Your task to perform on an android device: Open Youtube and go to "Your channel" Image 0: 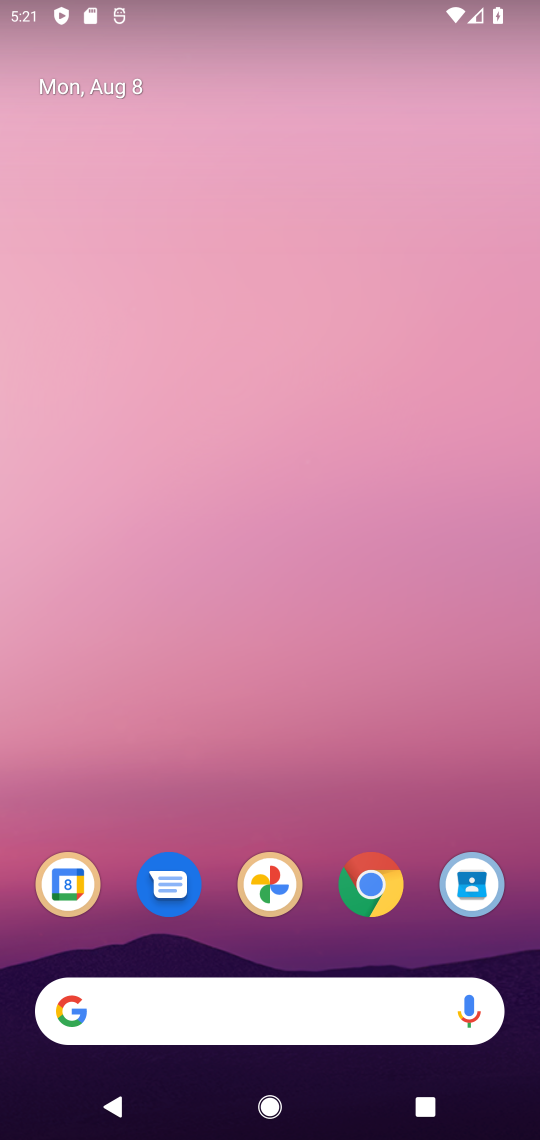
Step 0: drag from (321, 831) to (298, 142)
Your task to perform on an android device: Open Youtube and go to "Your channel" Image 1: 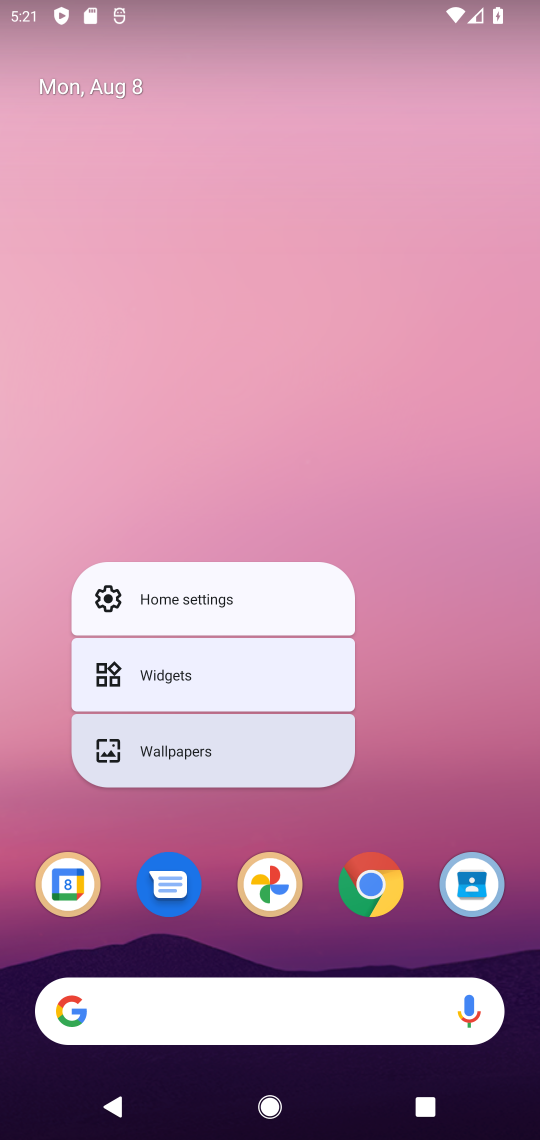
Step 1: drag from (429, 948) to (428, 220)
Your task to perform on an android device: Open Youtube and go to "Your channel" Image 2: 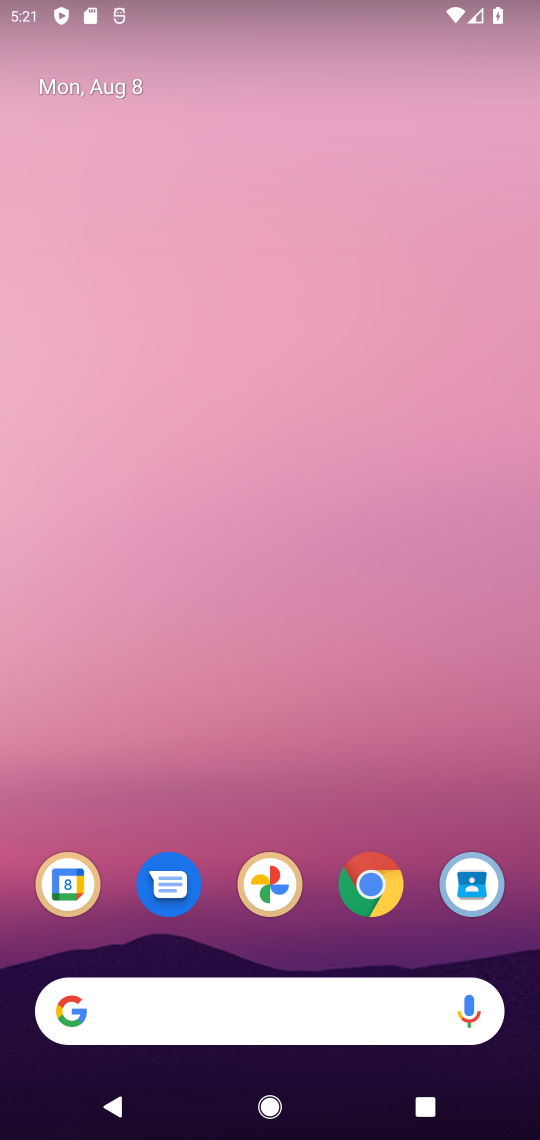
Step 2: drag from (432, 921) to (417, 68)
Your task to perform on an android device: Open Youtube and go to "Your channel" Image 3: 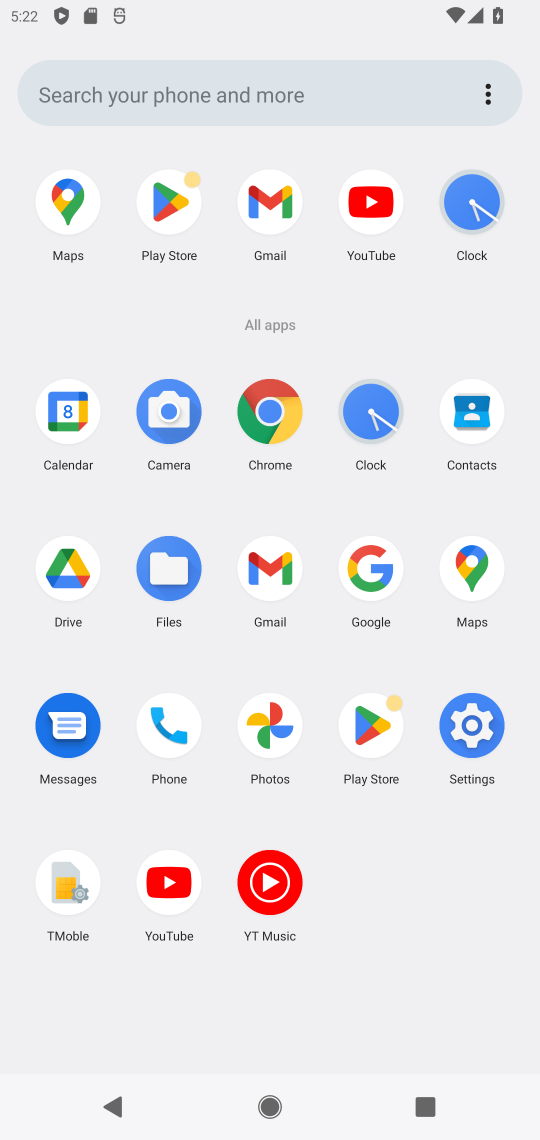
Step 3: click (193, 897)
Your task to perform on an android device: Open Youtube and go to "Your channel" Image 4: 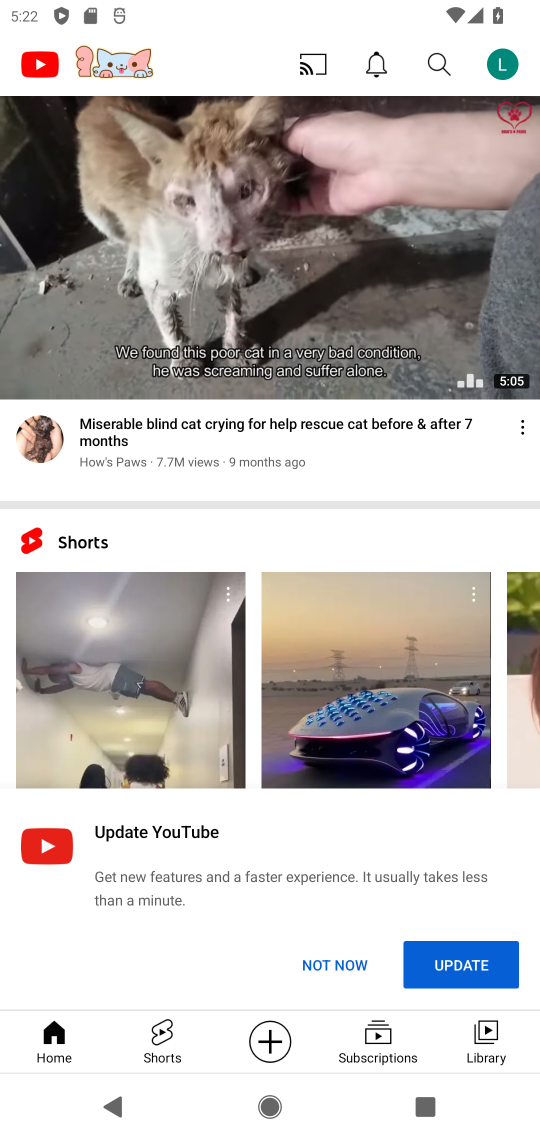
Step 4: click (502, 75)
Your task to perform on an android device: Open Youtube and go to "Your channel" Image 5: 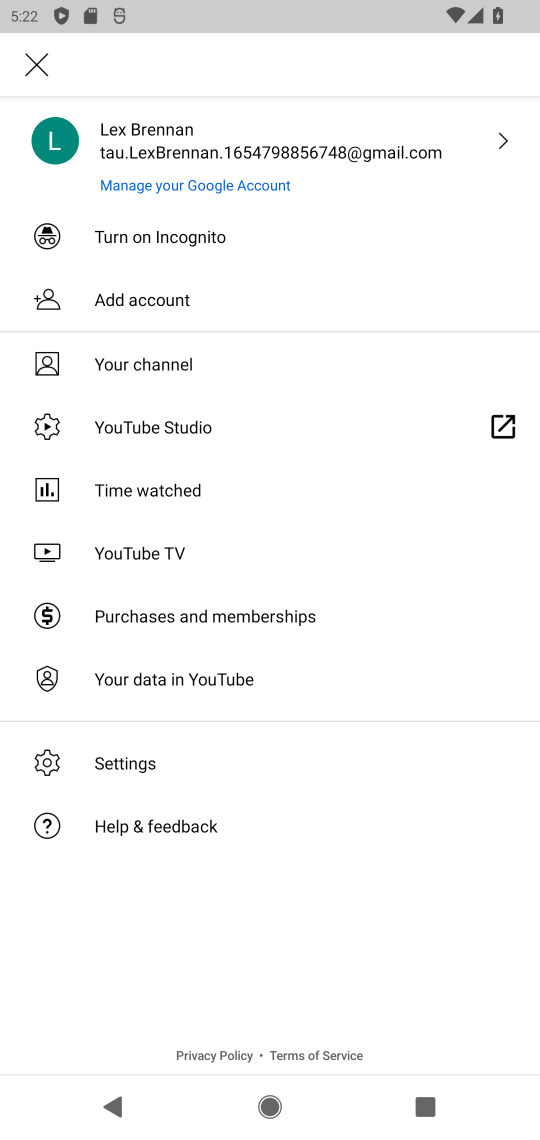
Step 5: click (243, 373)
Your task to perform on an android device: Open Youtube and go to "Your channel" Image 6: 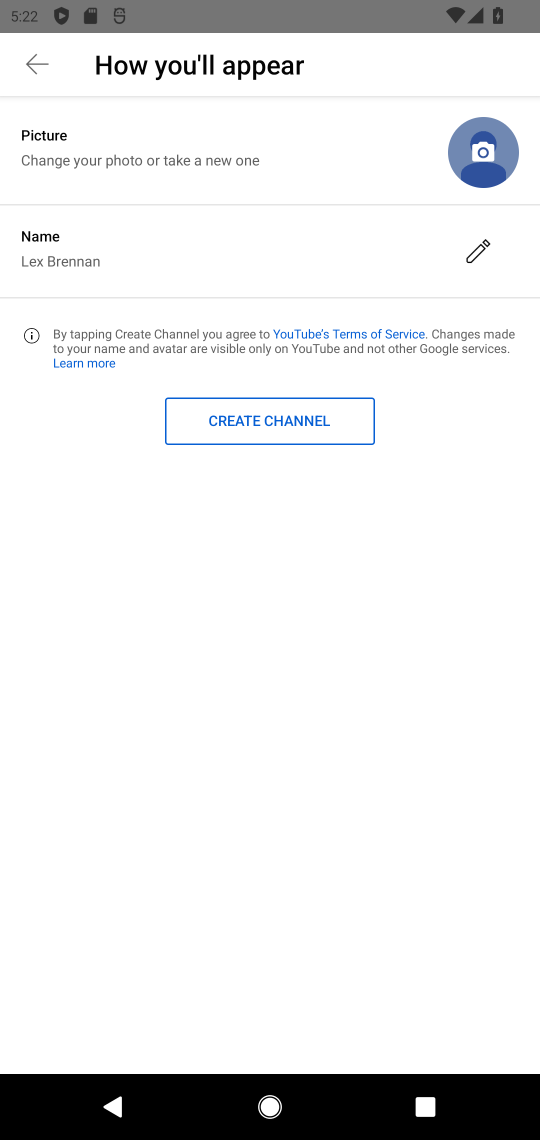
Step 6: task complete